Your task to perform on an android device: Go to accessibility settings Image 0: 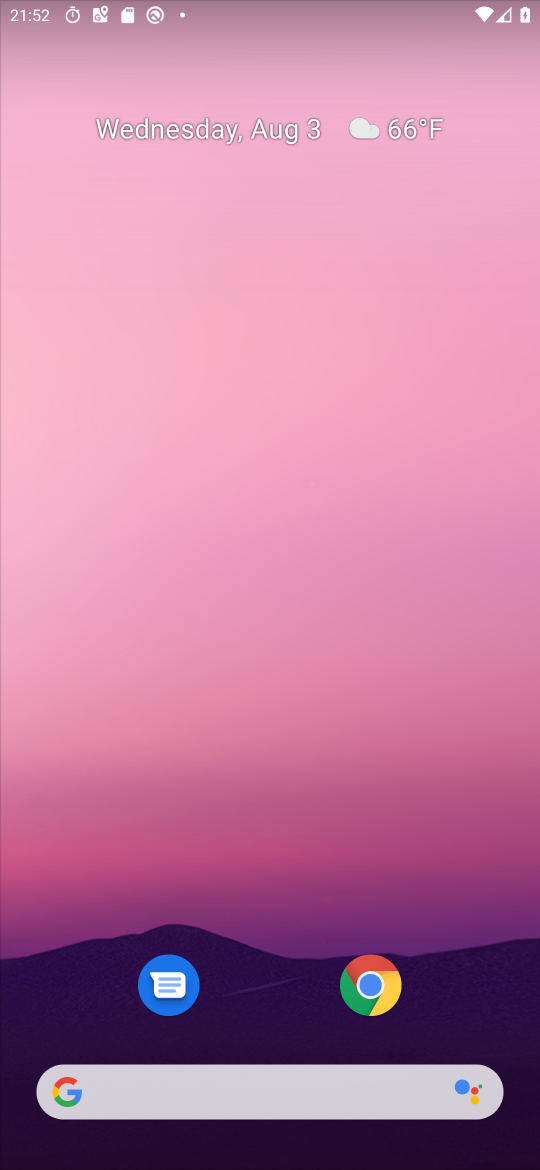
Step 0: drag from (293, 511) to (293, 30)
Your task to perform on an android device: Go to accessibility settings Image 1: 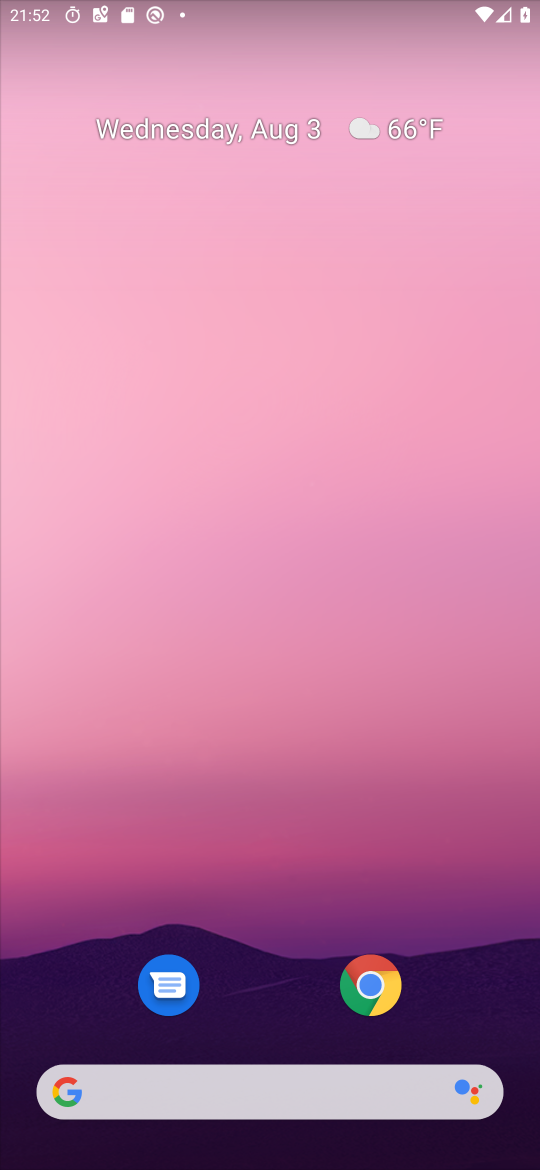
Step 1: drag from (262, 993) to (261, 148)
Your task to perform on an android device: Go to accessibility settings Image 2: 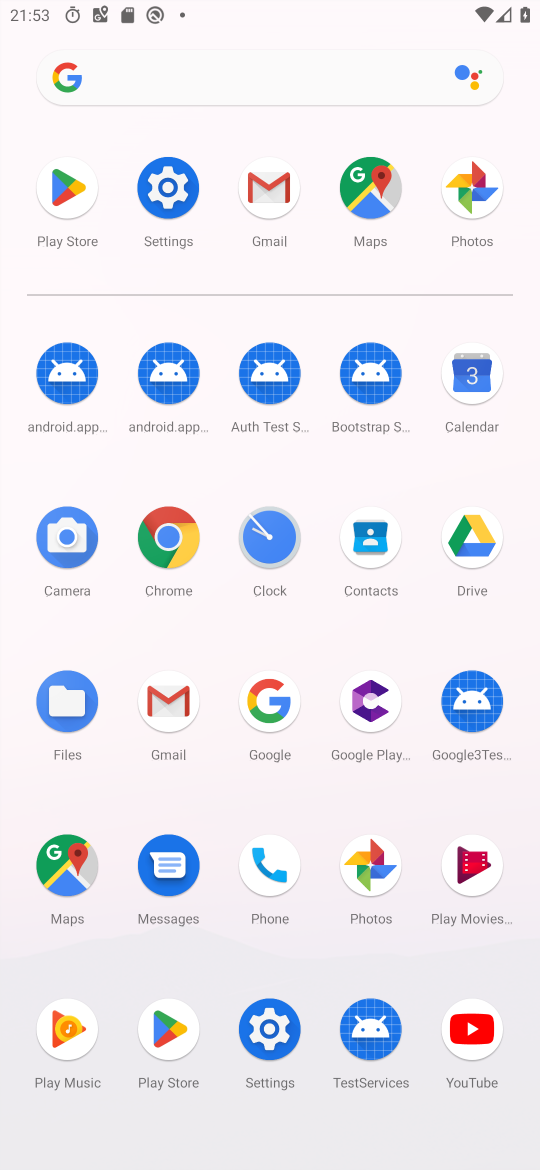
Step 2: click (174, 193)
Your task to perform on an android device: Go to accessibility settings Image 3: 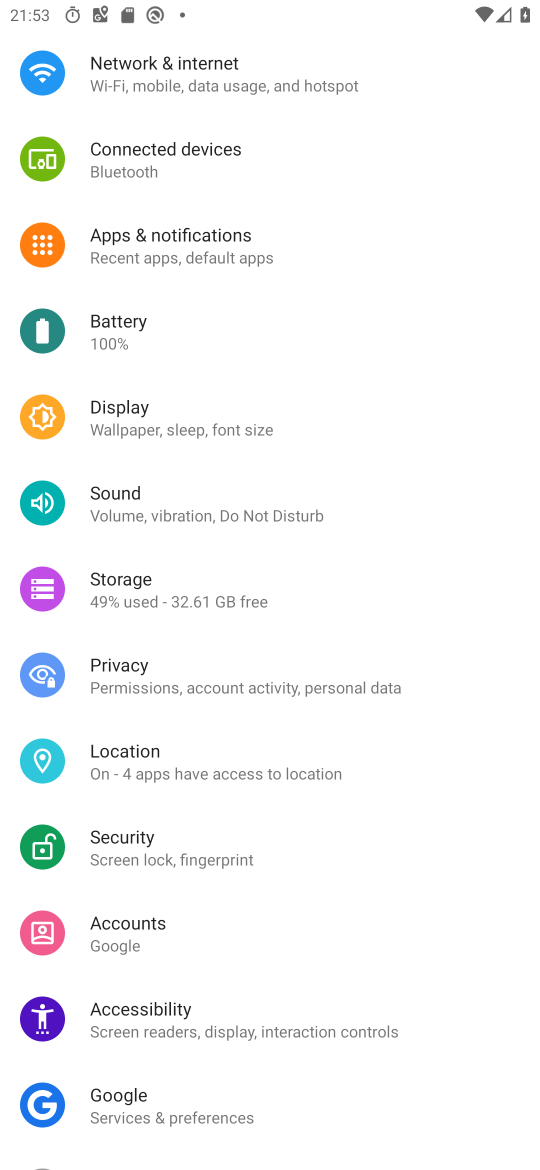
Step 3: click (173, 1004)
Your task to perform on an android device: Go to accessibility settings Image 4: 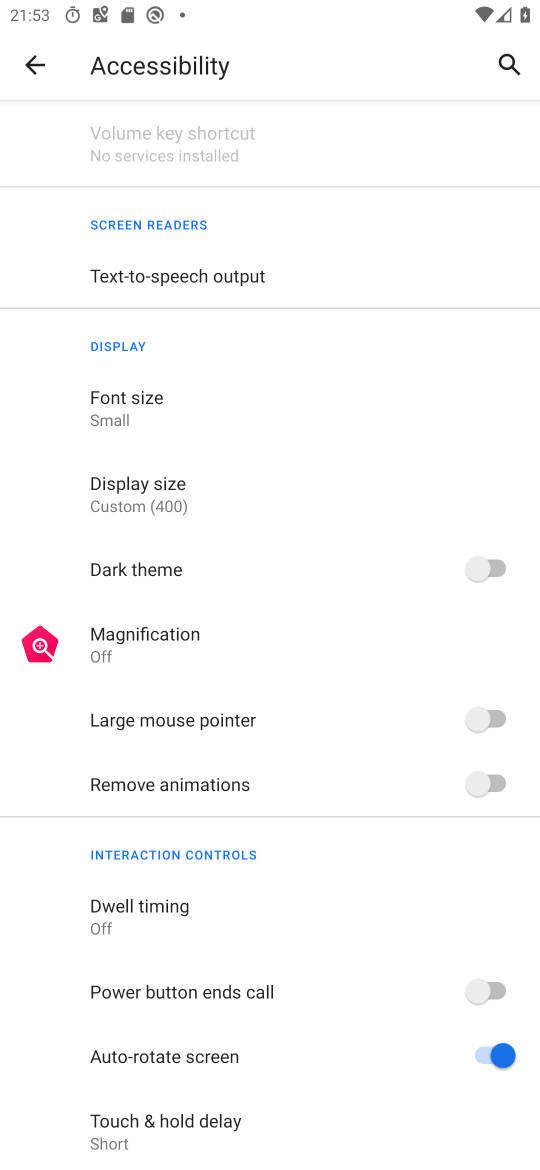
Step 4: task complete